Your task to perform on an android device: stop showing notifications on the lock screen Image 0: 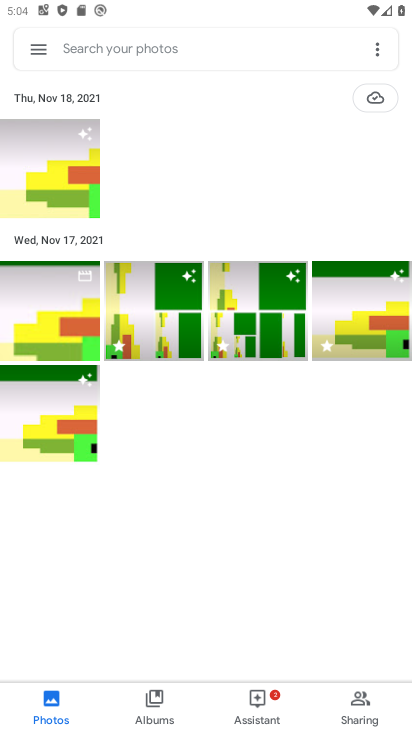
Step 0: press home button
Your task to perform on an android device: stop showing notifications on the lock screen Image 1: 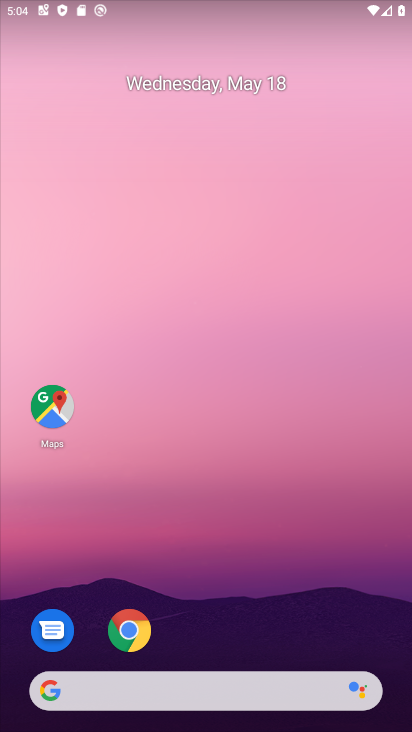
Step 1: drag from (193, 663) to (193, 156)
Your task to perform on an android device: stop showing notifications on the lock screen Image 2: 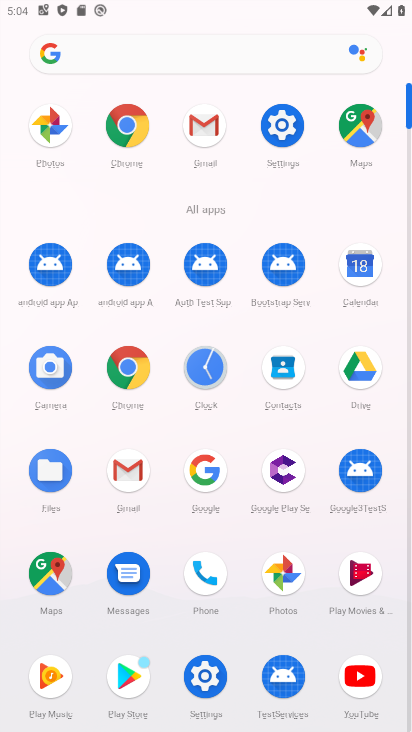
Step 2: click (292, 118)
Your task to perform on an android device: stop showing notifications on the lock screen Image 3: 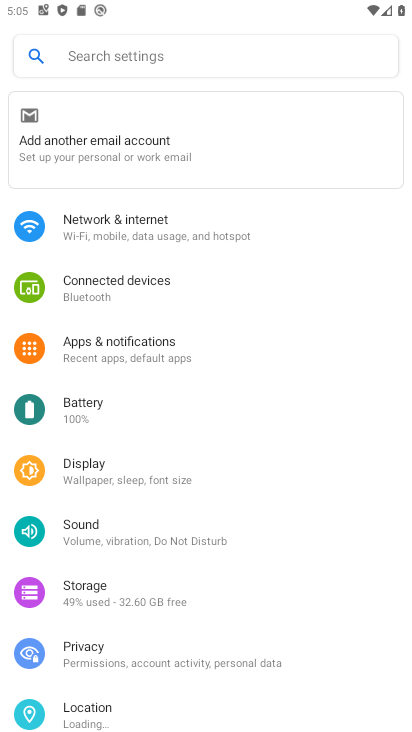
Step 3: drag from (103, 687) to (147, 324)
Your task to perform on an android device: stop showing notifications on the lock screen Image 4: 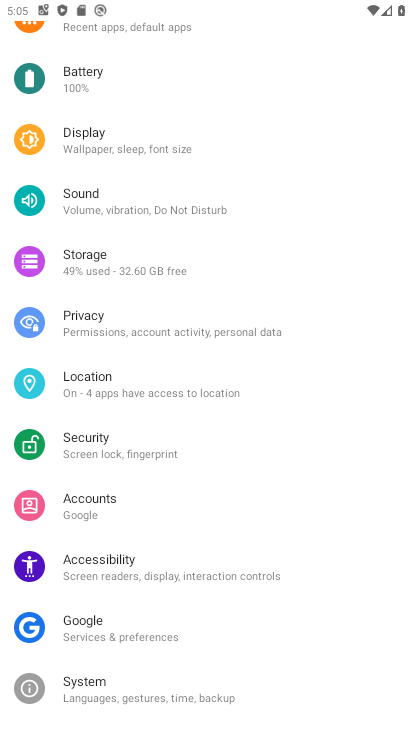
Step 4: click (96, 316)
Your task to perform on an android device: stop showing notifications on the lock screen Image 5: 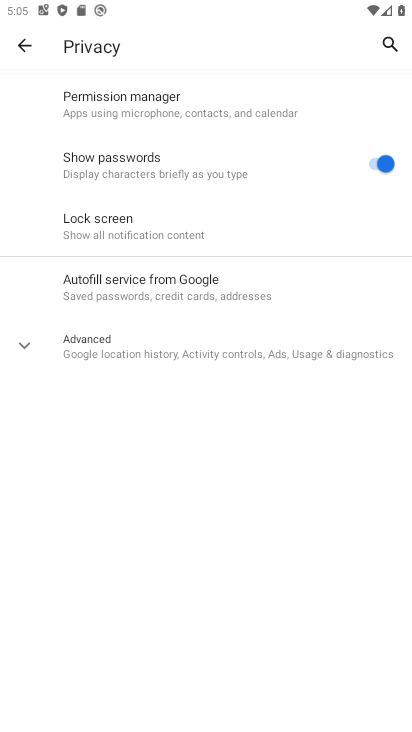
Step 5: click (111, 233)
Your task to perform on an android device: stop showing notifications on the lock screen Image 6: 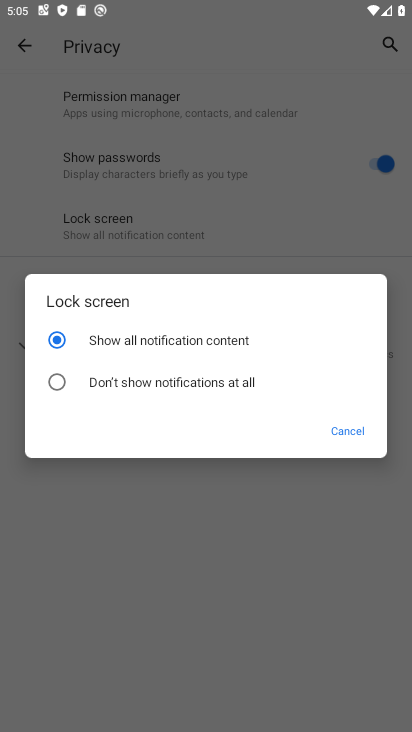
Step 6: click (111, 381)
Your task to perform on an android device: stop showing notifications on the lock screen Image 7: 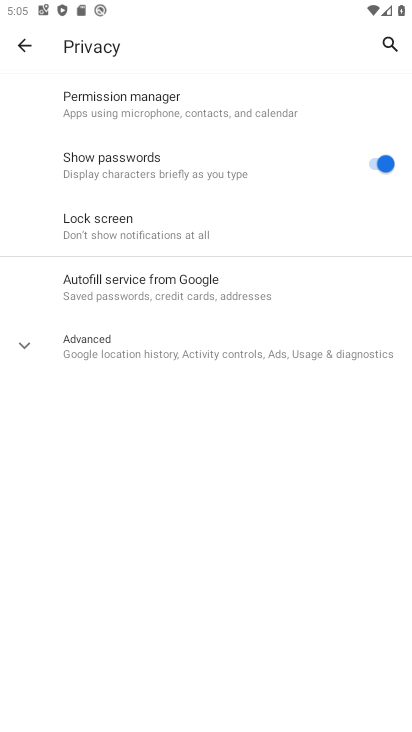
Step 7: task complete